Your task to perform on an android device: Go to sound settings Image 0: 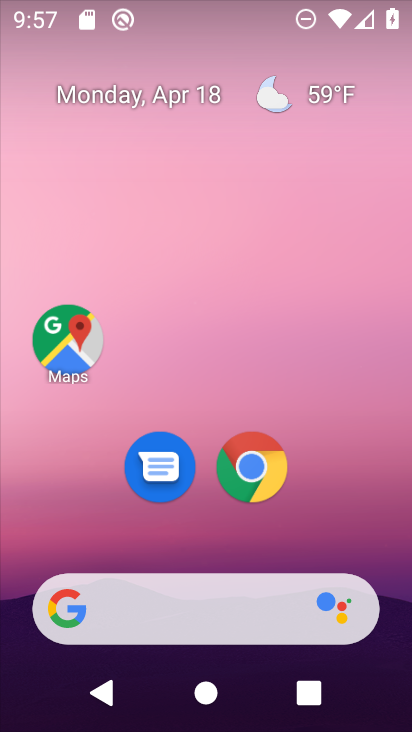
Step 0: drag from (188, 484) to (307, 23)
Your task to perform on an android device: Go to sound settings Image 1: 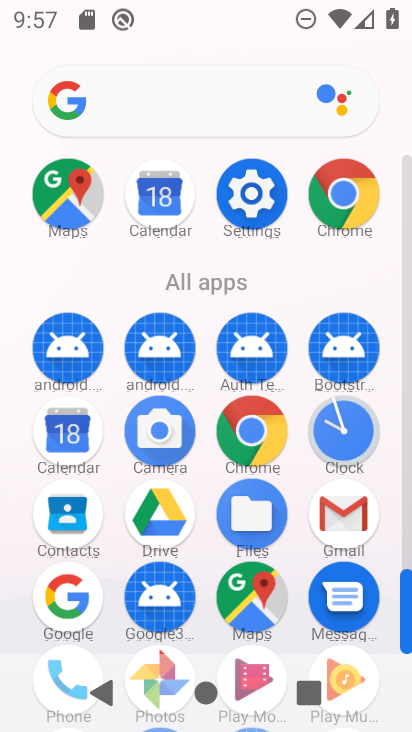
Step 1: click (252, 186)
Your task to perform on an android device: Go to sound settings Image 2: 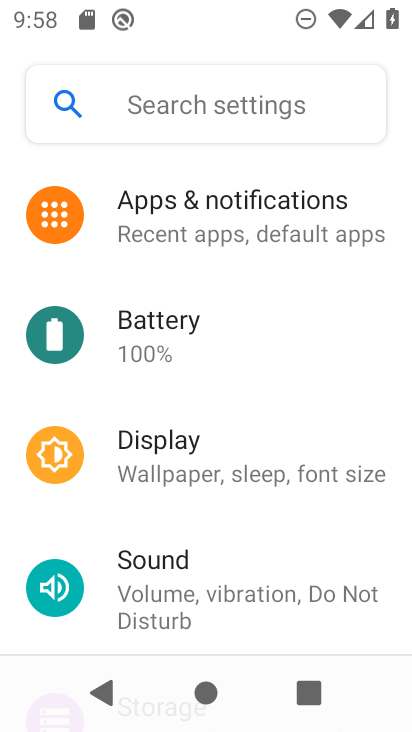
Step 2: click (187, 565)
Your task to perform on an android device: Go to sound settings Image 3: 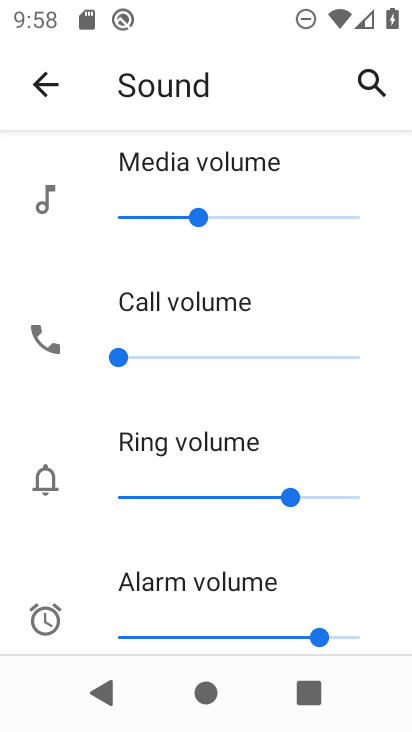
Step 3: task complete